Your task to perform on an android device: What's the weather? Image 0: 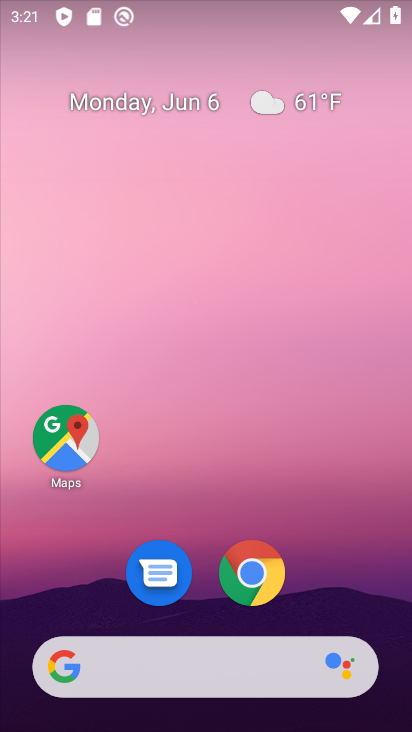
Step 0: drag from (281, 599) to (321, 121)
Your task to perform on an android device: What's the weather? Image 1: 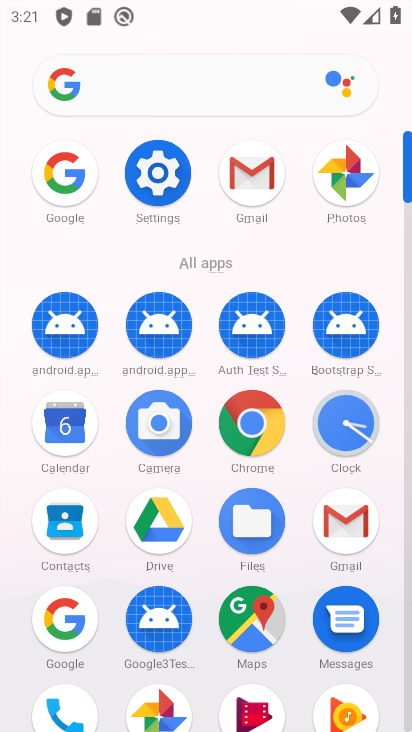
Step 1: click (73, 627)
Your task to perform on an android device: What's the weather? Image 2: 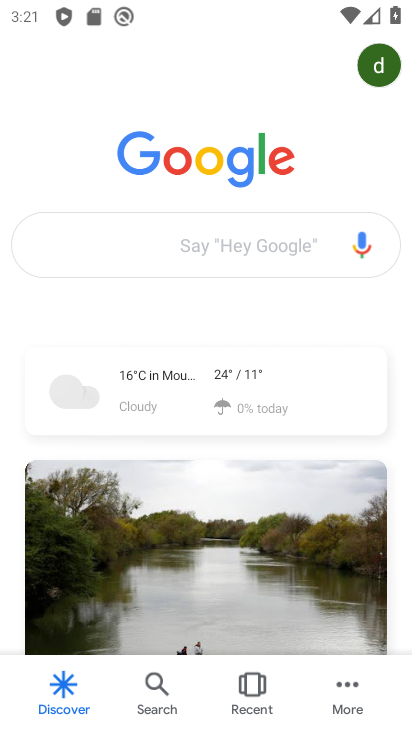
Step 2: click (164, 388)
Your task to perform on an android device: What's the weather? Image 3: 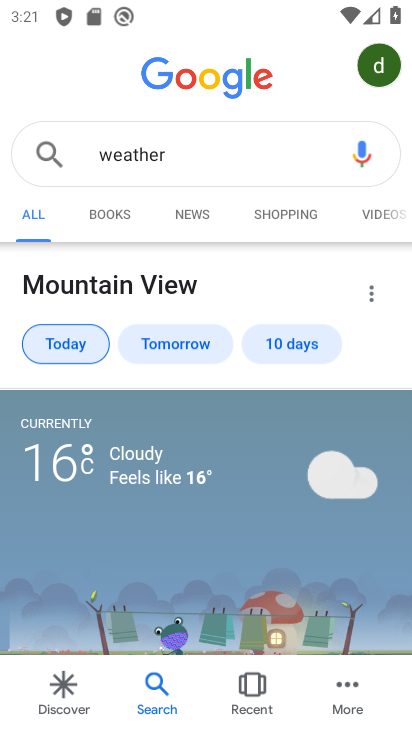
Step 3: task complete